Your task to perform on an android device: toggle data saver in the chrome app Image 0: 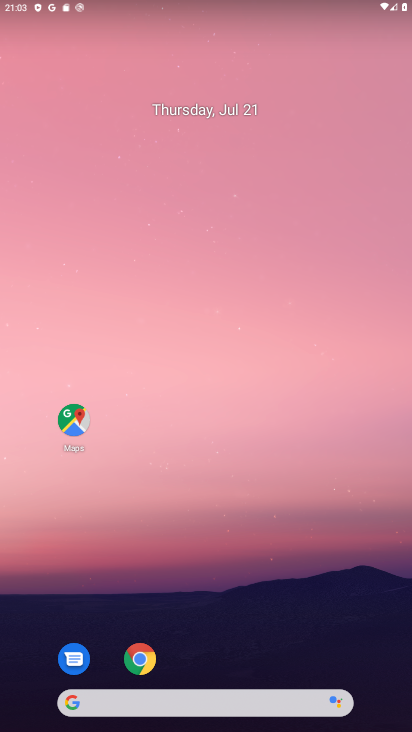
Step 0: press home button
Your task to perform on an android device: toggle data saver in the chrome app Image 1: 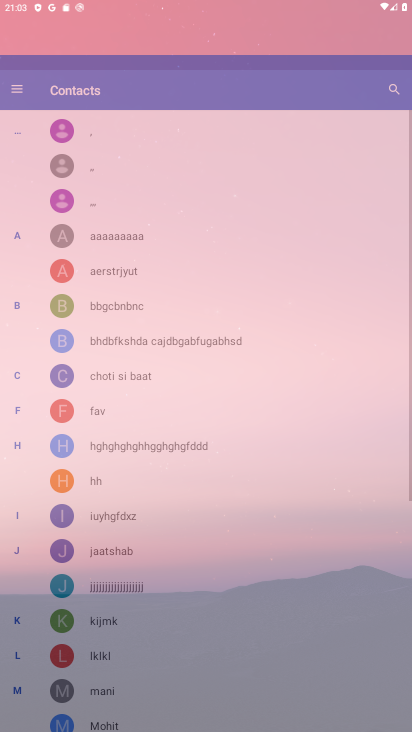
Step 1: drag from (249, 665) to (250, 259)
Your task to perform on an android device: toggle data saver in the chrome app Image 2: 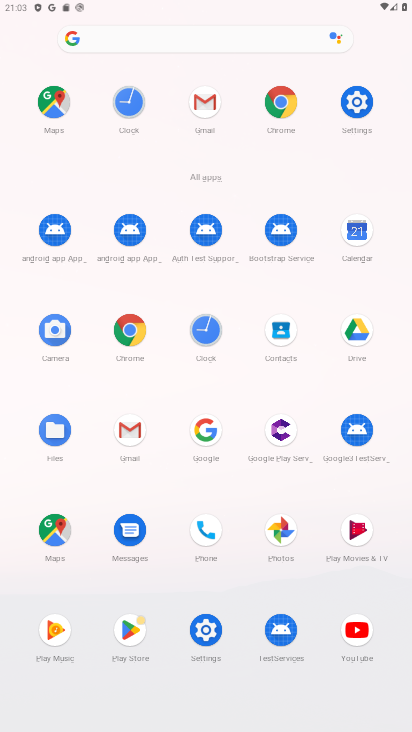
Step 2: click (121, 328)
Your task to perform on an android device: toggle data saver in the chrome app Image 3: 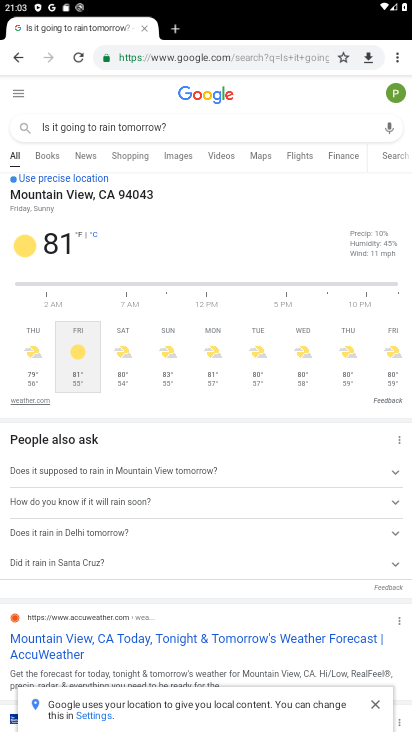
Step 3: drag from (391, 62) to (277, 349)
Your task to perform on an android device: toggle data saver in the chrome app Image 4: 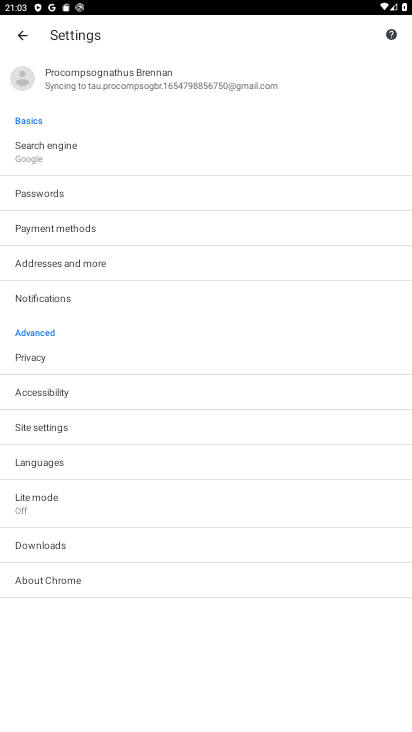
Step 4: click (56, 493)
Your task to perform on an android device: toggle data saver in the chrome app Image 5: 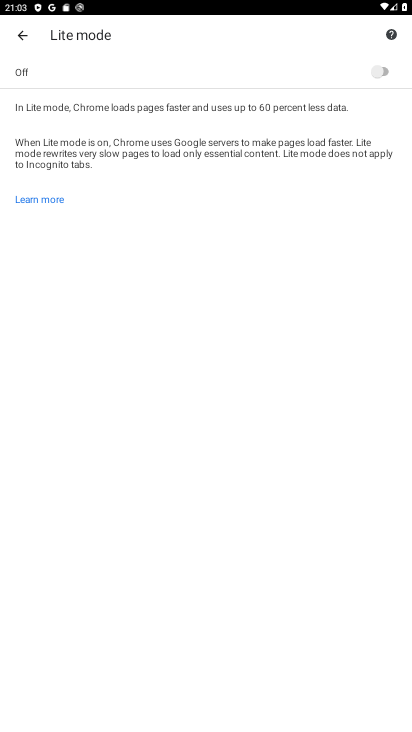
Step 5: click (244, 74)
Your task to perform on an android device: toggle data saver in the chrome app Image 6: 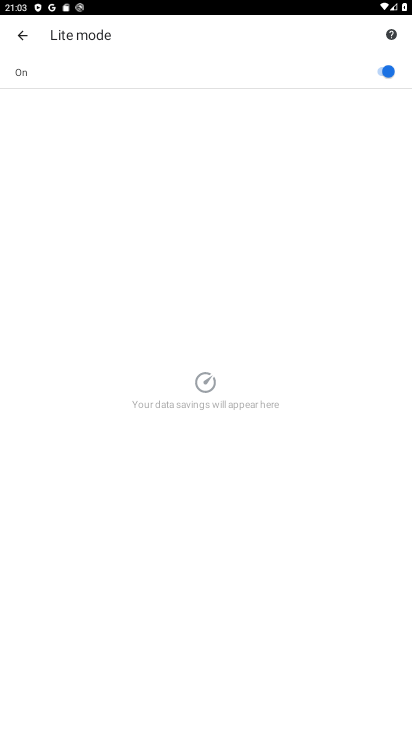
Step 6: task complete